Your task to perform on an android device: add a contact in the contacts app Image 0: 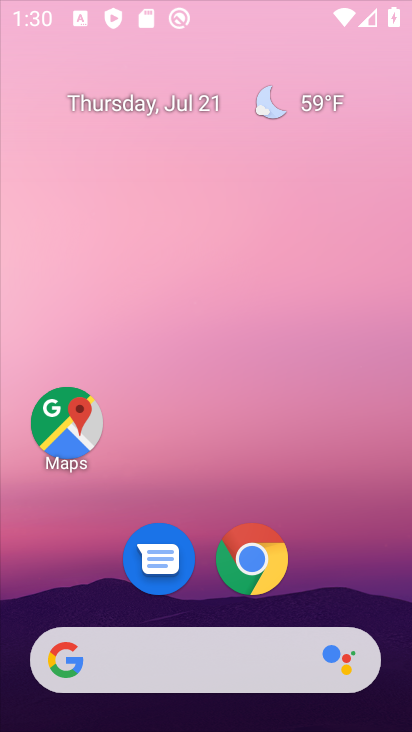
Step 0: drag from (222, 477) to (252, 15)
Your task to perform on an android device: add a contact in the contacts app Image 1: 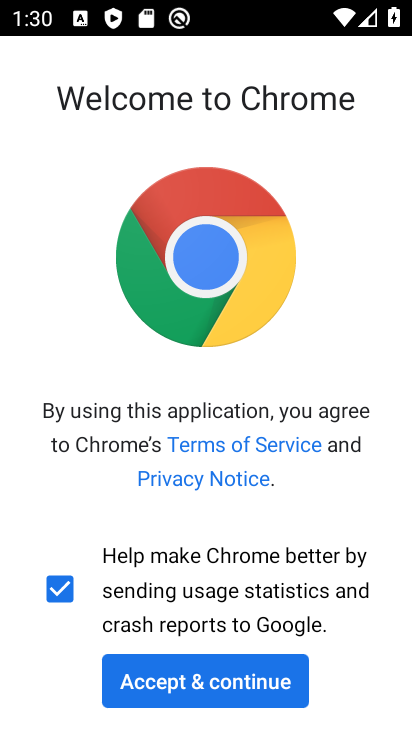
Step 1: press home button
Your task to perform on an android device: add a contact in the contacts app Image 2: 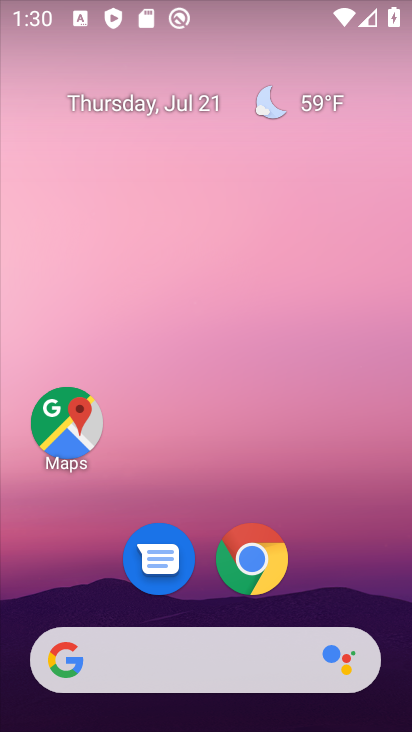
Step 2: drag from (278, 587) to (410, 300)
Your task to perform on an android device: add a contact in the contacts app Image 3: 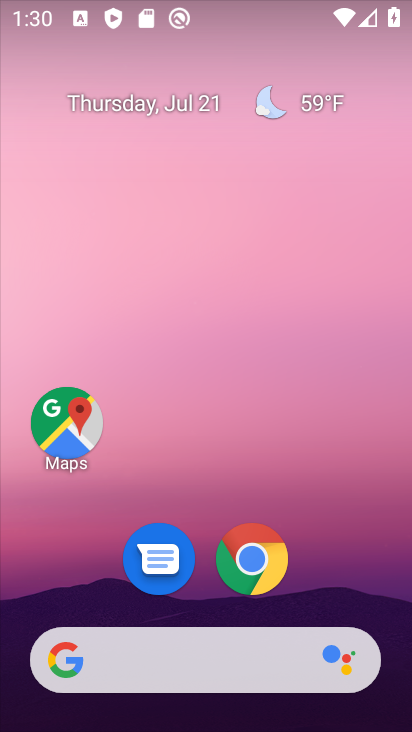
Step 3: drag from (176, 617) to (385, 0)
Your task to perform on an android device: add a contact in the contacts app Image 4: 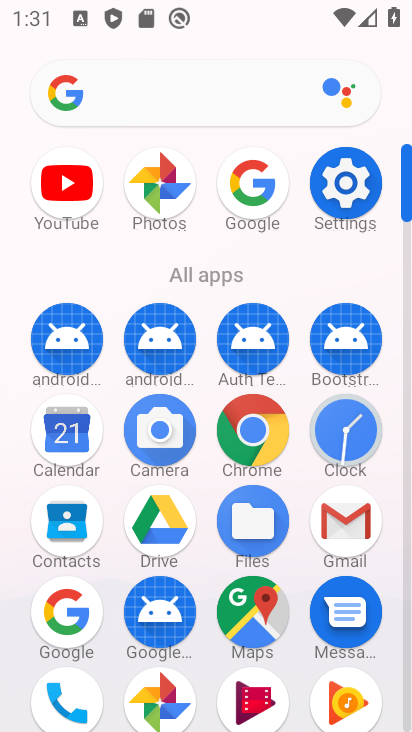
Step 4: click (272, 519)
Your task to perform on an android device: add a contact in the contacts app Image 5: 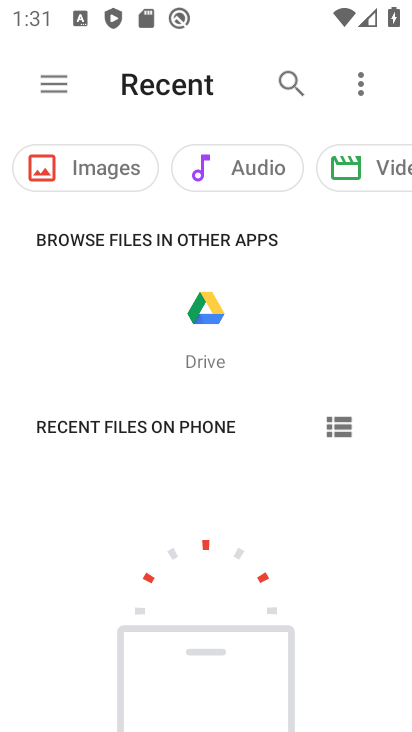
Step 5: press home button
Your task to perform on an android device: add a contact in the contacts app Image 6: 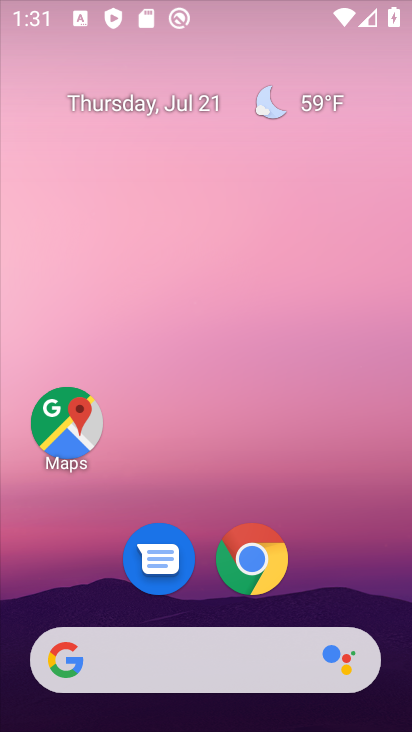
Step 6: drag from (201, 620) to (271, 307)
Your task to perform on an android device: add a contact in the contacts app Image 7: 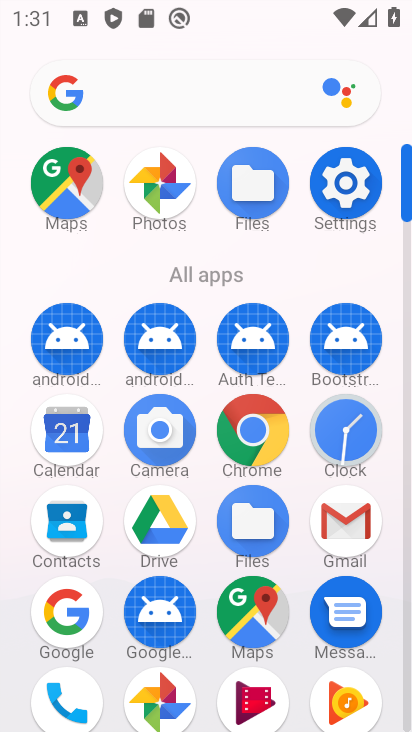
Step 7: click (69, 518)
Your task to perform on an android device: add a contact in the contacts app Image 8: 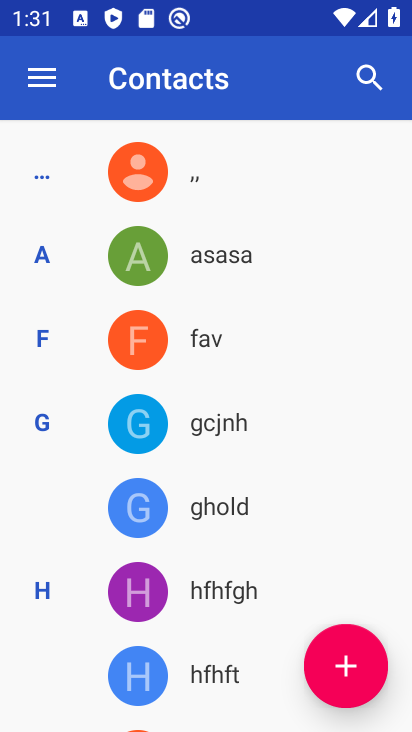
Step 8: click (359, 689)
Your task to perform on an android device: add a contact in the contacts app Image 9: 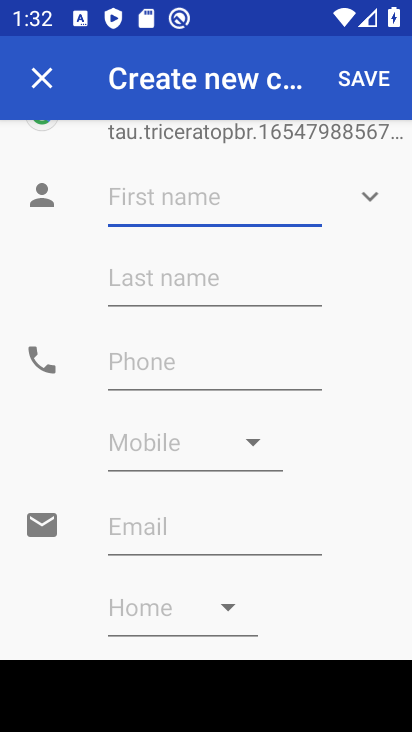
Step 9: type "jyffgy"
Your task to perform on an android device: add a contact in the contacts app Image 10: 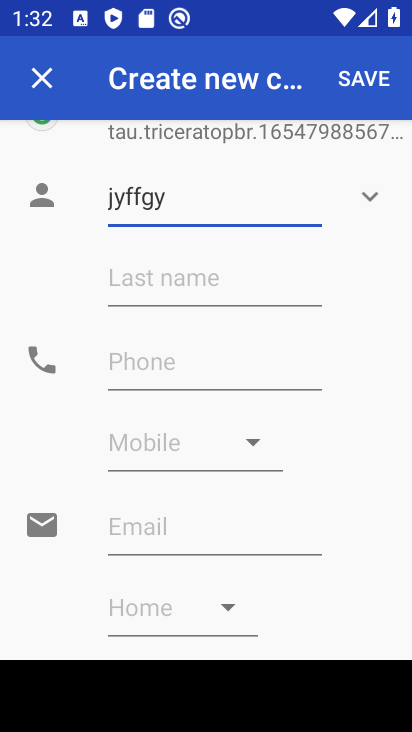
Step 10: click (189, 367)
Your task to perform on an android device: add a contact in the contacts app Image 11: 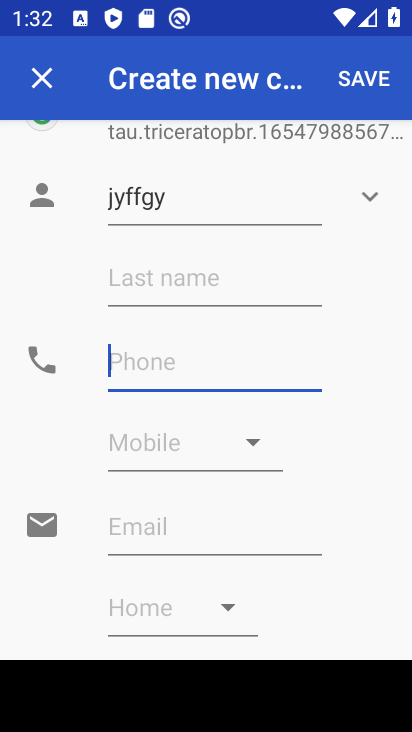
Step 11: type "098445678"
Your task to perform on an android device: add a contact in the contacts app Image 12: 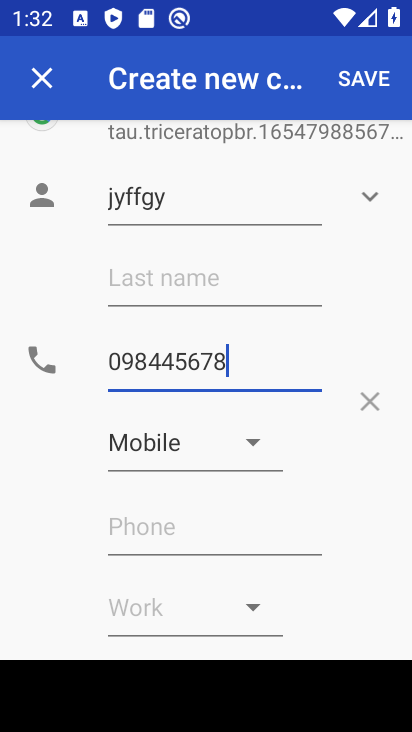
Step 12: click (379, 82)
Your task to perform on an android device: add a contact in the contacts app Image 13: 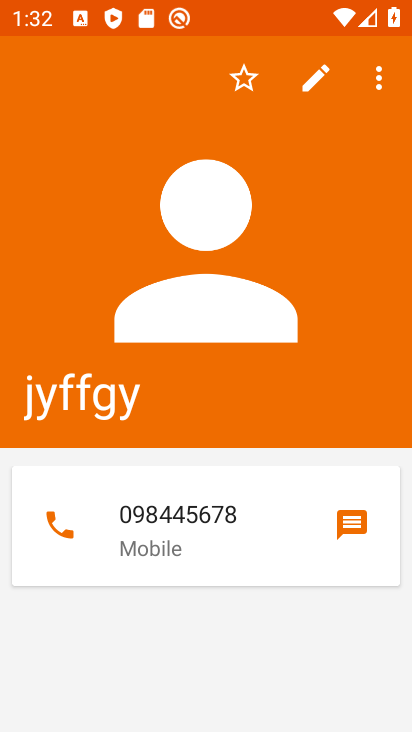
Step 13: task complete